Your task to perform on an android device: Open Amazon Image 0: 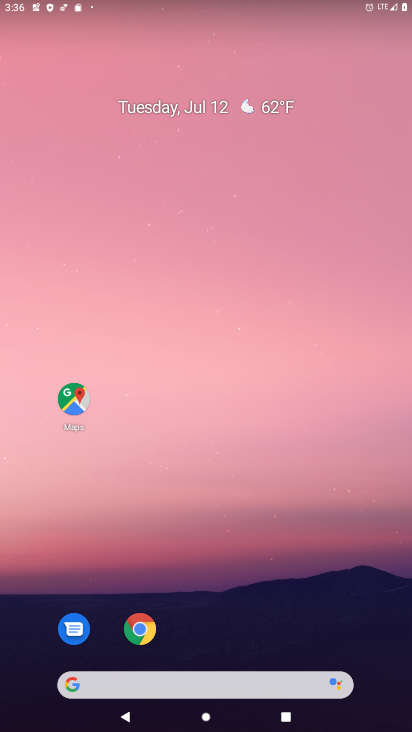
Step 0: click (128, 632)
Your task to perform on an android device: Open Amazon Image 1: 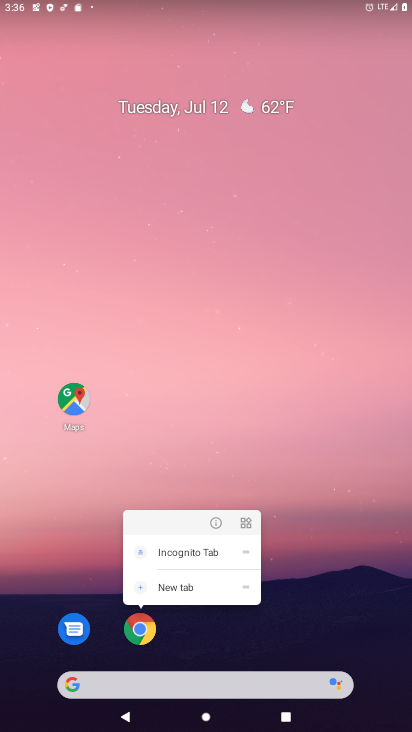
Step 1: click (137, 627)
Your task to perform on an android device: Open Amazon Image 2: 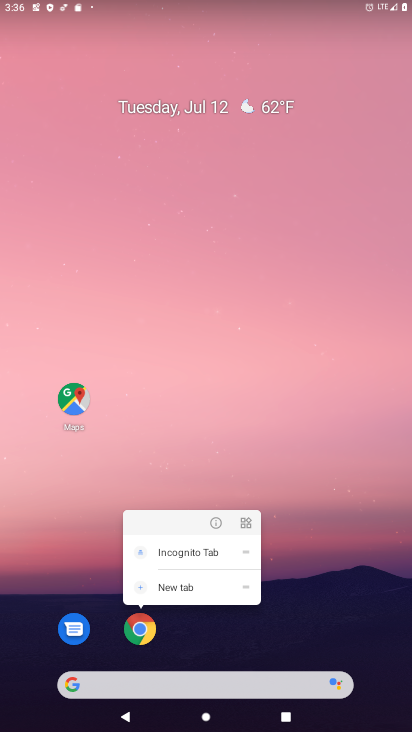
Step 2: click (152, 635)
Your task to perform on an android device: Open Amazon Image 3: 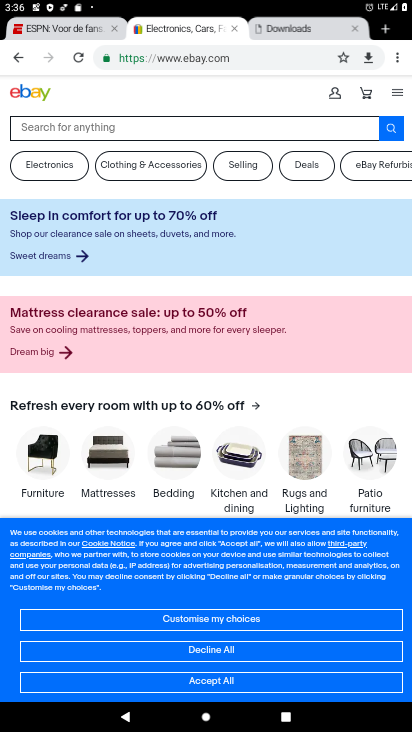
Step 3: click (286, 22)
Your task to perform on an android device: Open Amazon Image 4: 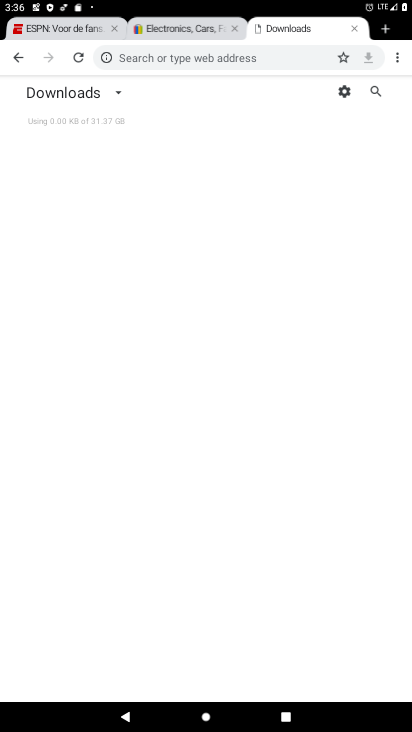
Step 4: click (384, 34)
Your task to perform on an android device: Open Amazon Image 5: 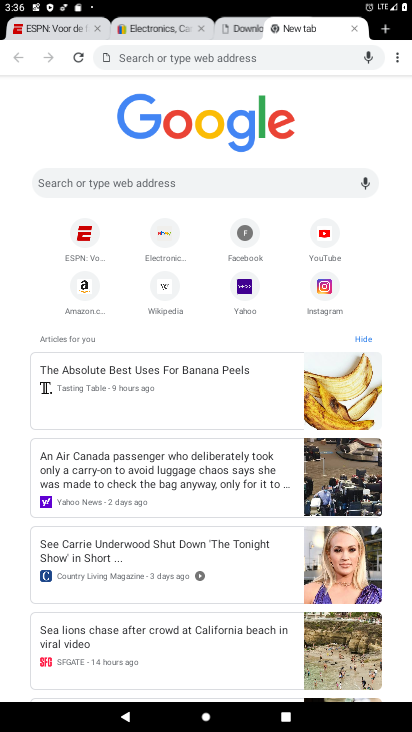
Step 5: click (69, 293)
Your task to perform on an android device: Open Amazon Image 6: 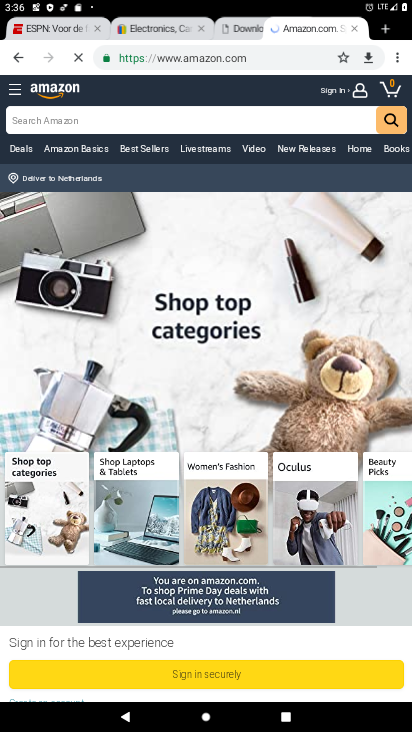
Step 6: task complete